Your task to perform on an android device: Open settings on Google Maps Image 0: 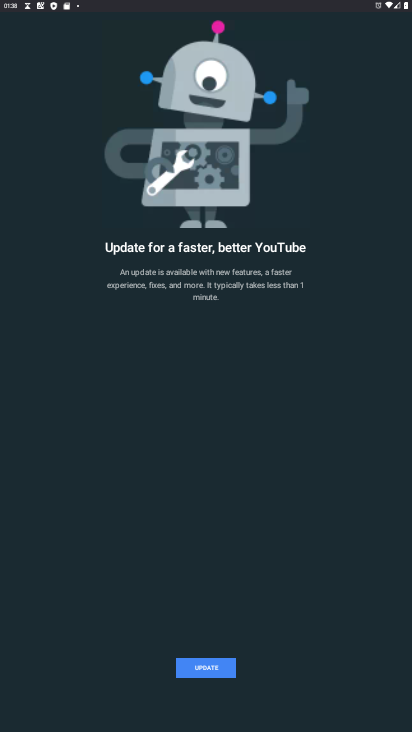
Step 0: press home button
Your task to perform on an android device: Open settings on Google Maps Image 1: 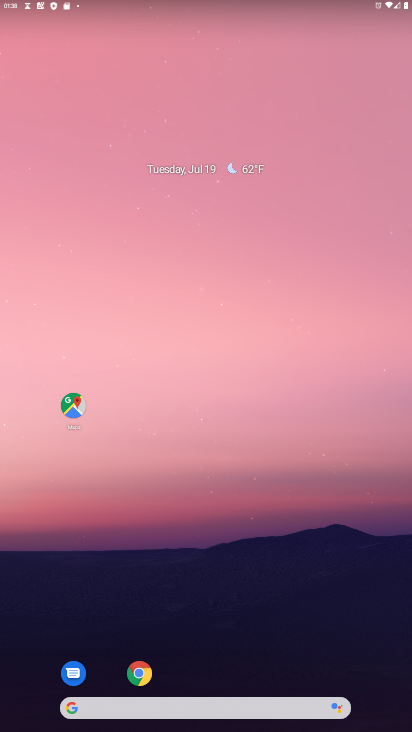
Step 1: drag from (266, 631) to (255, 93)
Your task to perform on an android device: Open settings on Google Maps Image 2: 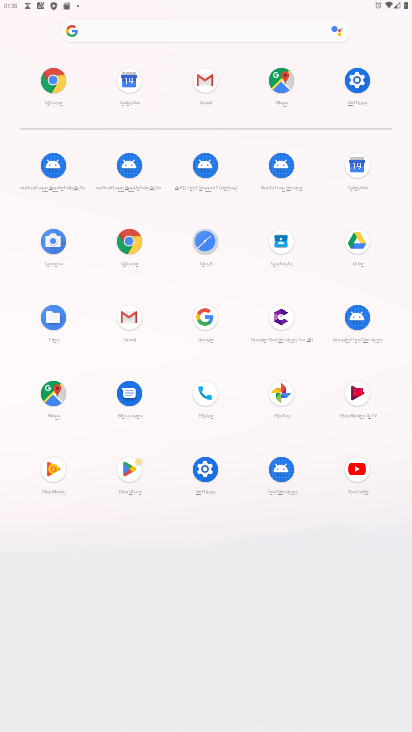
Step 2: click (42, 400)
Your task to perform on an android device: Open settings on Google Maps Image 3: 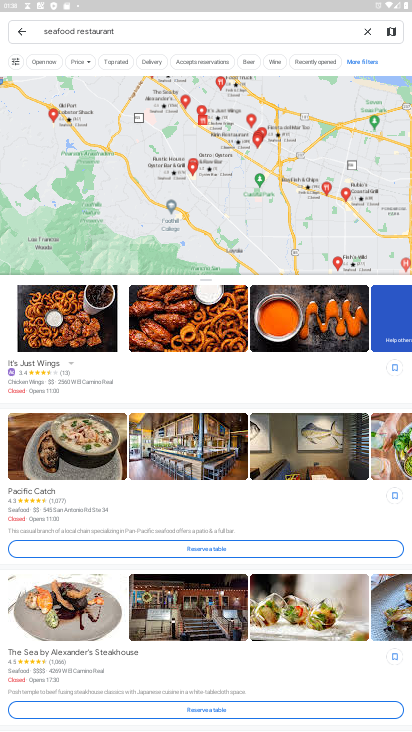
Step 3: click (367, 31)
Your task to perform on an android device: Open settings on Google Maps Image 4: 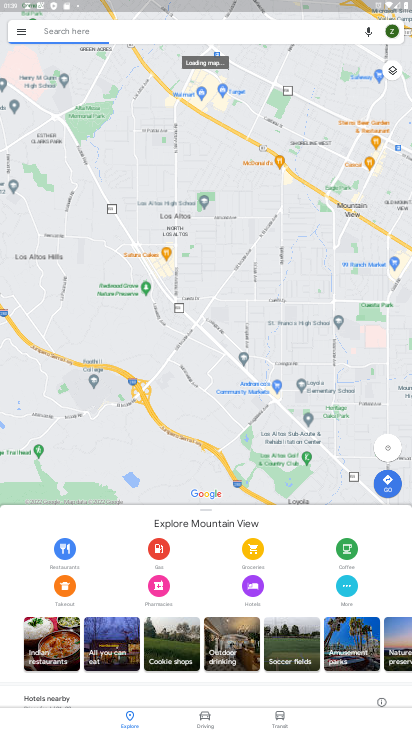
Step 4: click (15, 32)
Your task to perform on an android device: Open settings on Google Maps Image 5: 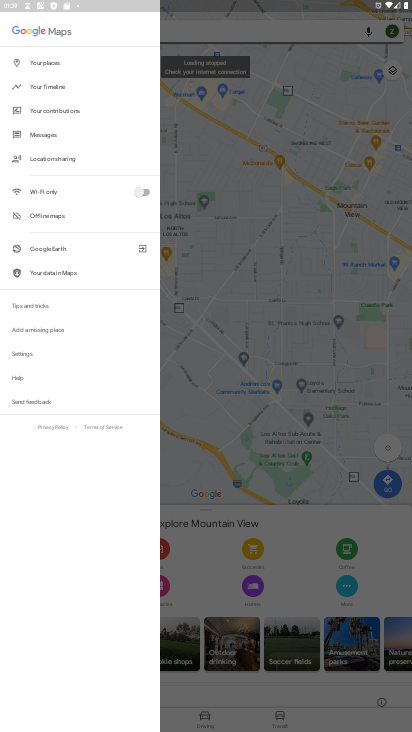
Step 5: click (38, 359)
Your task to perform on an android device: Open settings on Google Maps Image 6: 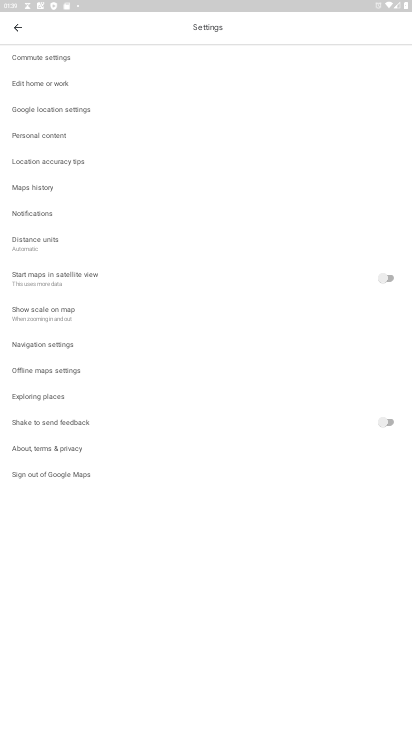
Step 6: task complete